Your task to perform on an android device: Open maps Image 0: 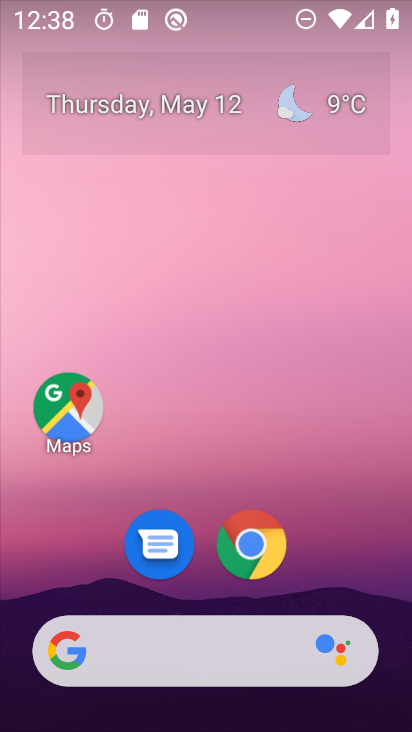
Step 0: drag from (217, 725) to (218, 100)
Your task to perform on an android device: Open maps Image 1: 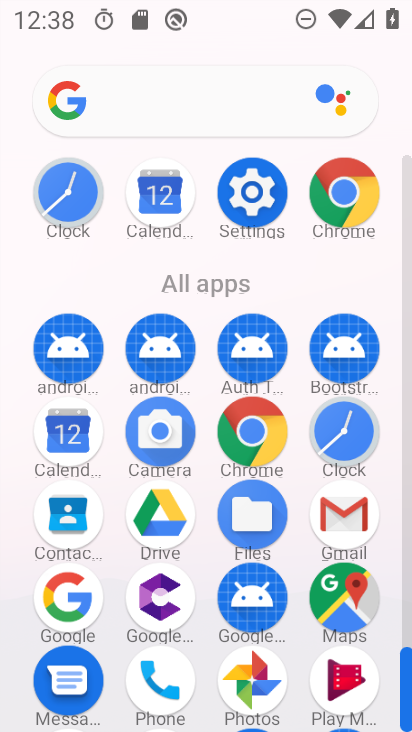
Step 1: click (351, 586)
Your task to perform on an android device: Open maps Image 2: 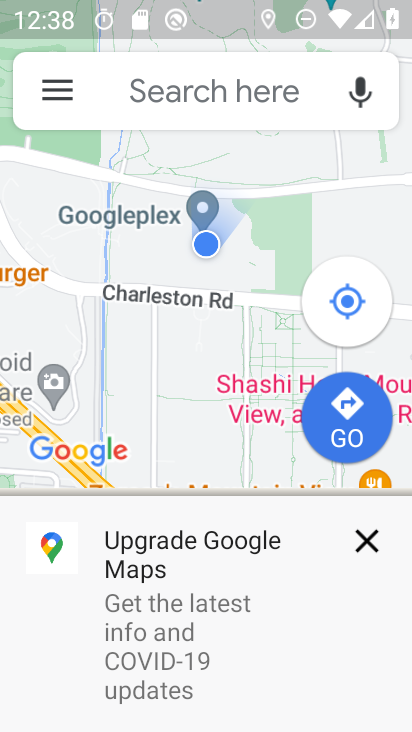
Step 2: click (364, 540)
Your task to perform on an android device: Open maps Image 3: 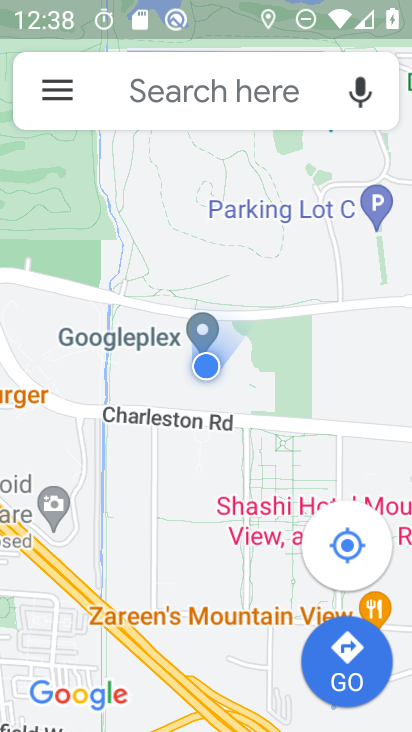
Step 3: task complete